Your task to perform on an android device: Add logitech g910 to the cart on bestbuy.com, then select checkout. Image 0: 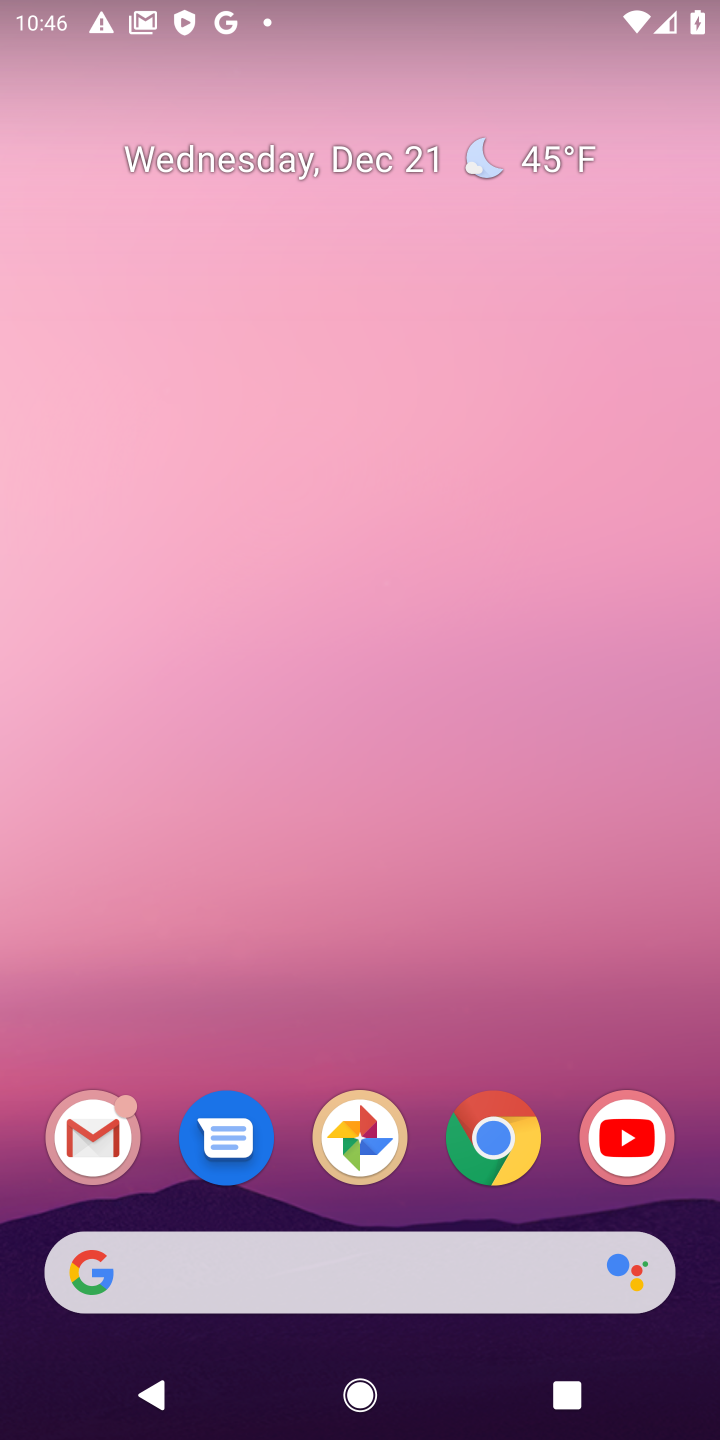
Step 0: click (498, 1137)
Your task to perform on an android device: Add logitech g910 to the cart on bestbuy.com, then select checkout. Image 1: 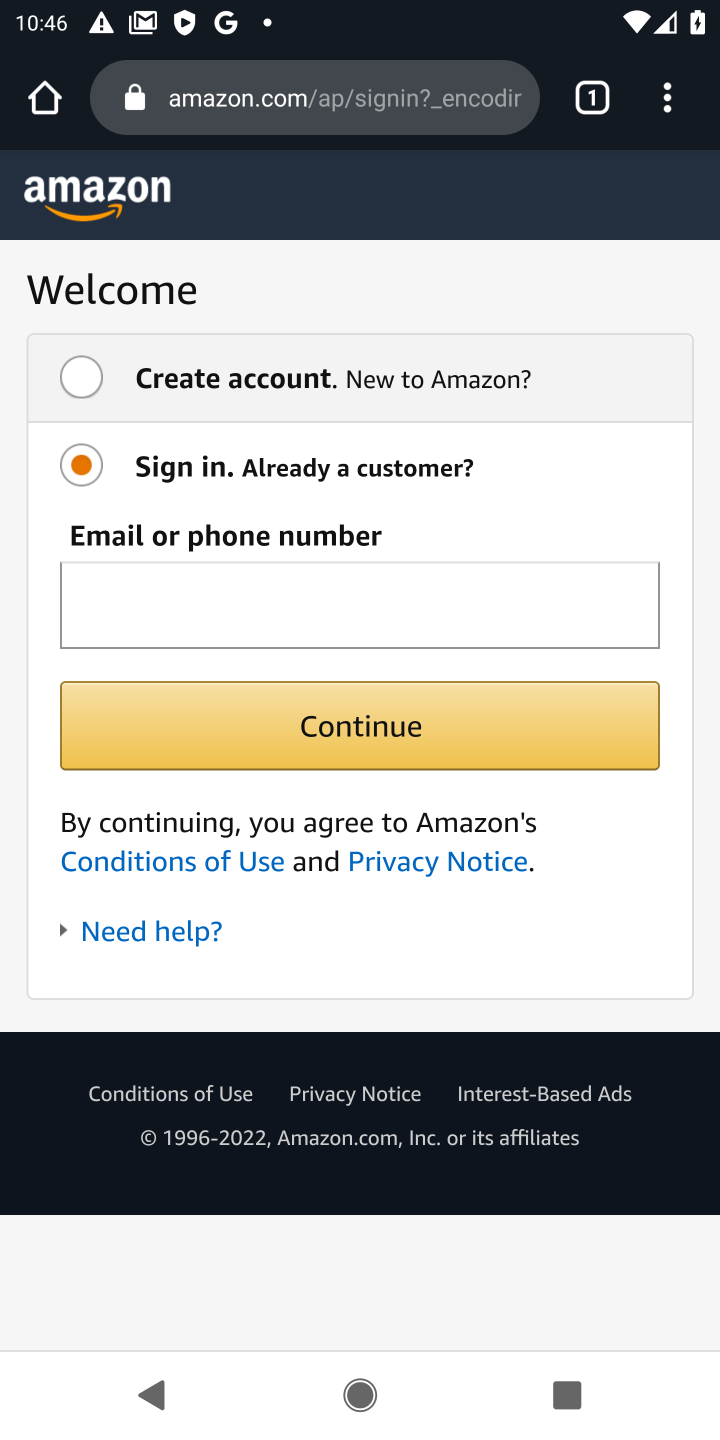
Step 1: click (274, 100)
Your task to perform on an android device: Add logitech g910 to the cart on bestbuy.com, then select checkout. Image 2: 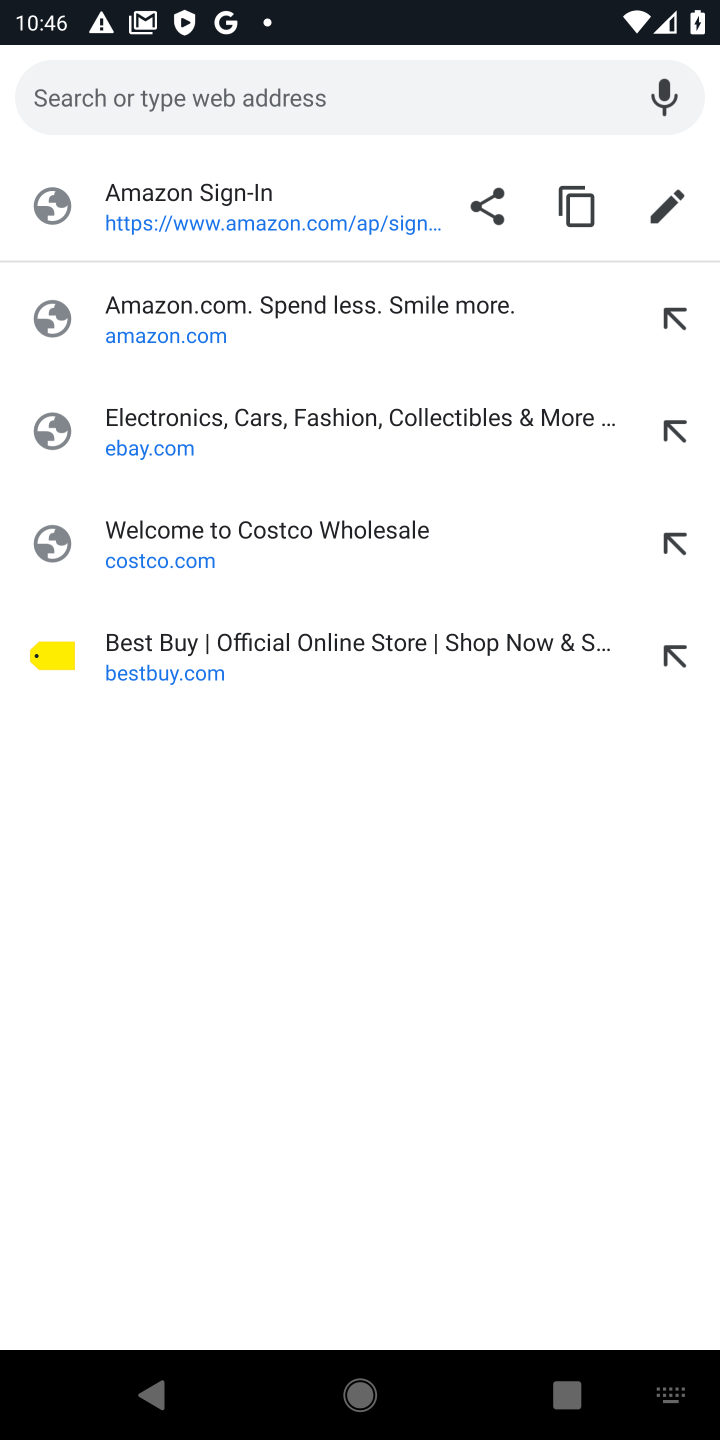
Step 2: click (148, 650)
Your task to perform on an android device: Add logitech g910 to the cart on bestbuy.com, then select checkout. Image 3: 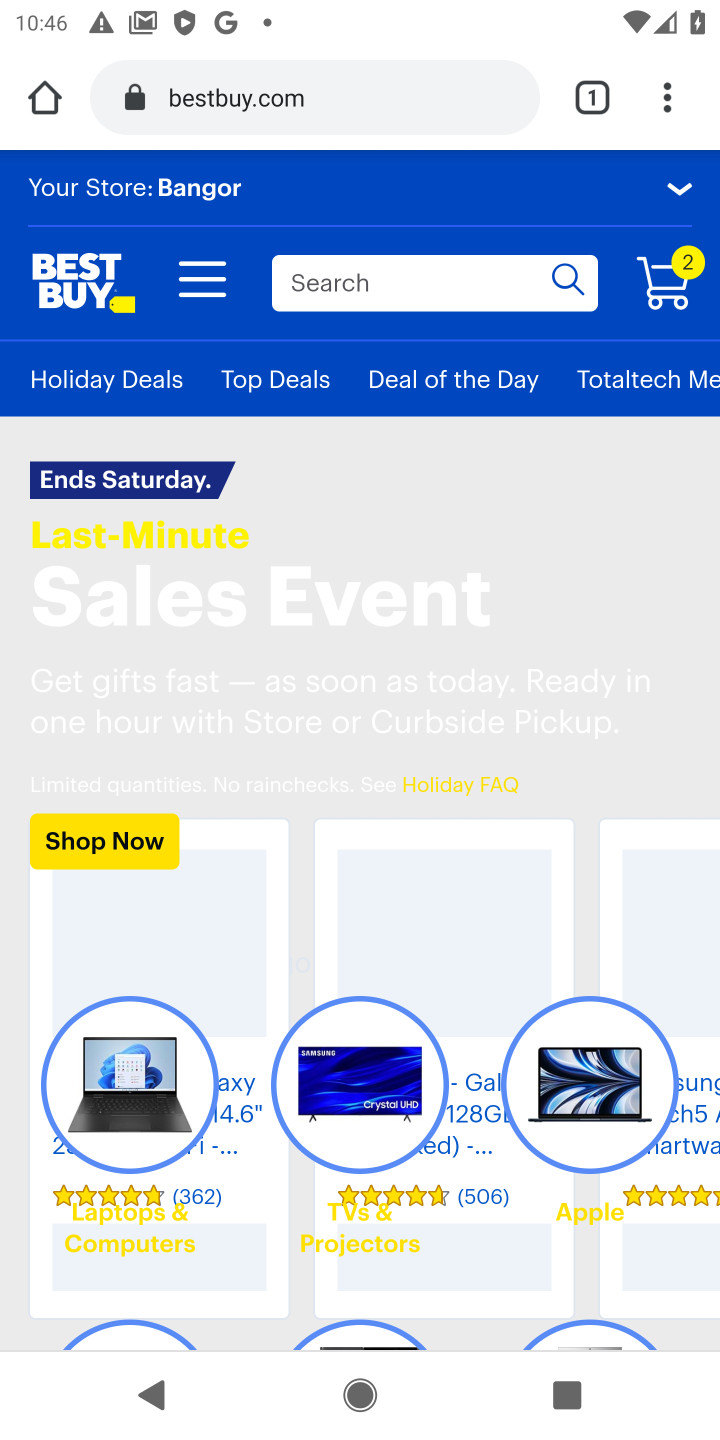
Step 3: click (347, 297)
Your task to perform on an android device: Add logitech g910 to the cart on bestbuy.com, then select checkout. Image 4: 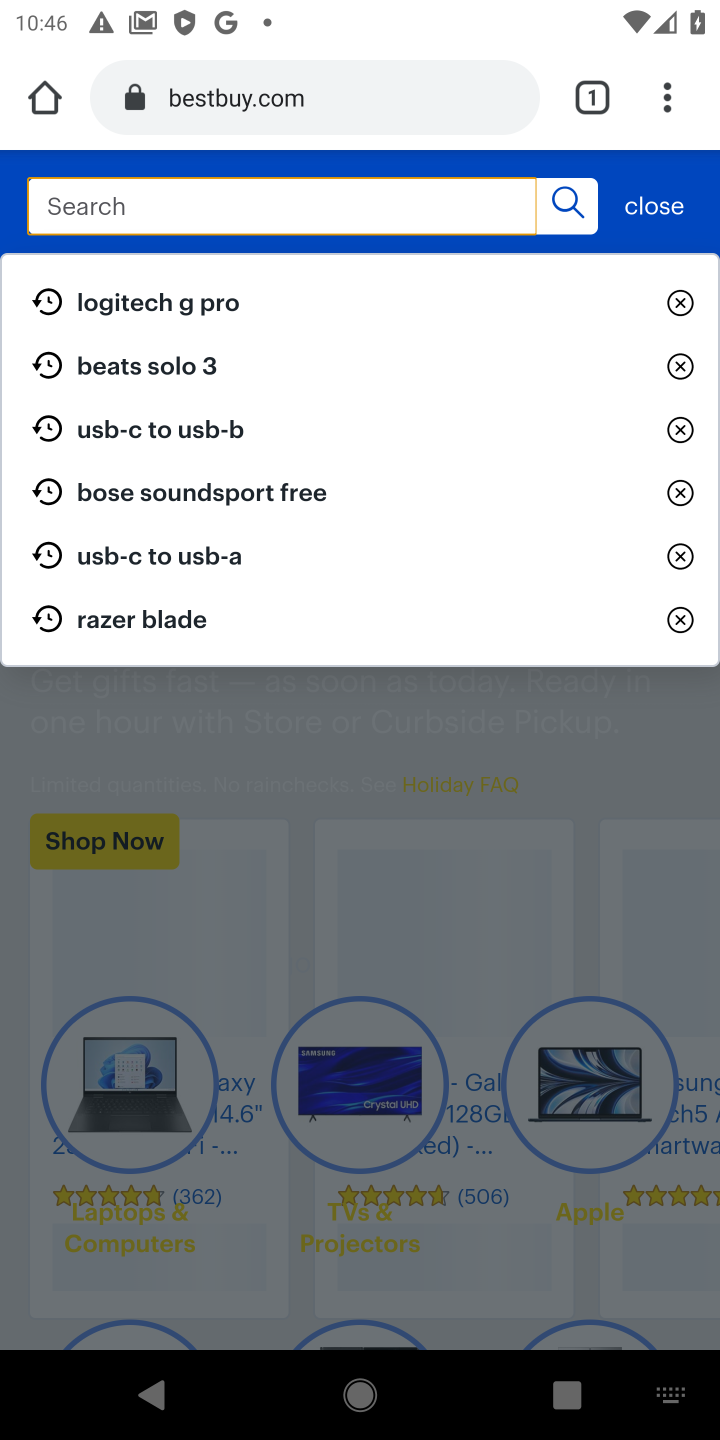
Step 4: type " logitech g910"
Your task to perform on an android device: Add logitech g910 to the cart on bestbuy.com, then select checkout. Image 5: 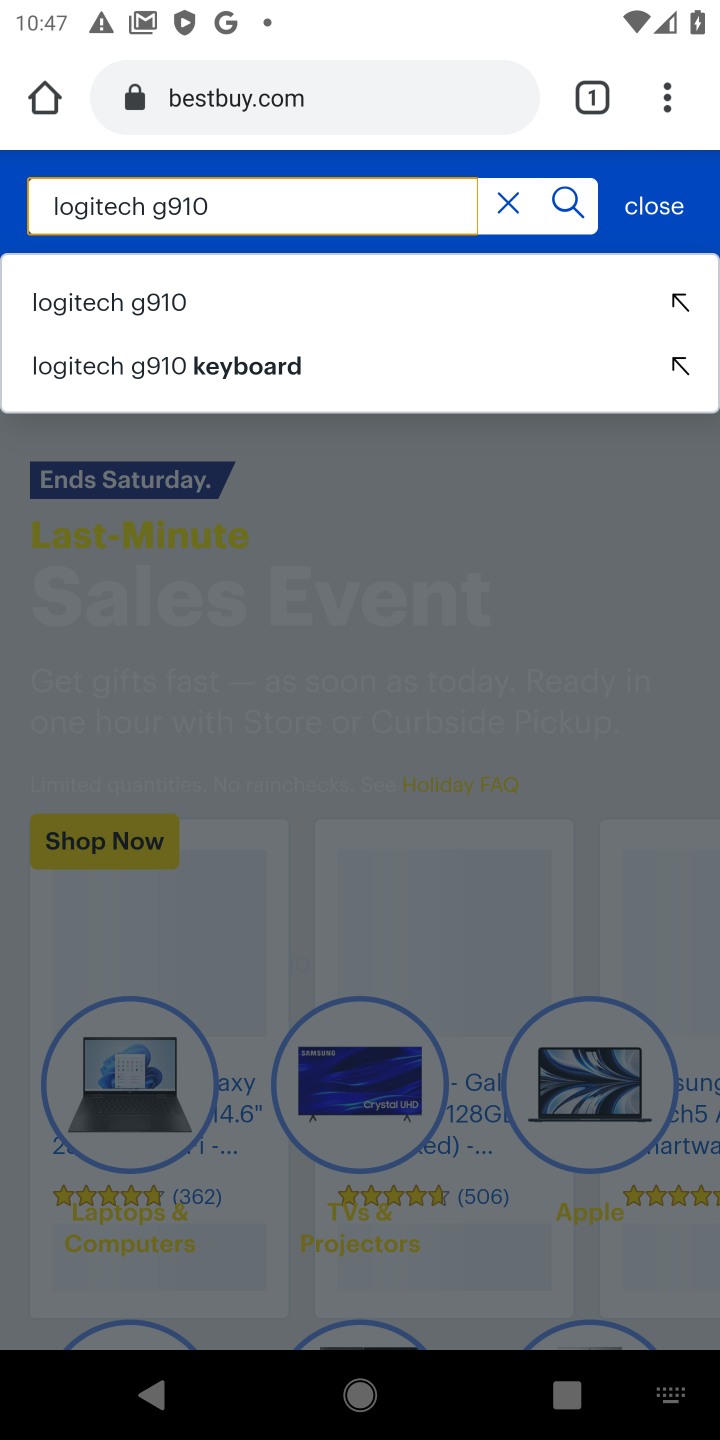
Step 5: click (120, 308)
Your task to perform on an android device: Add logitech g910 to the cart on bestbuy.com, then select checkout. Image 6: 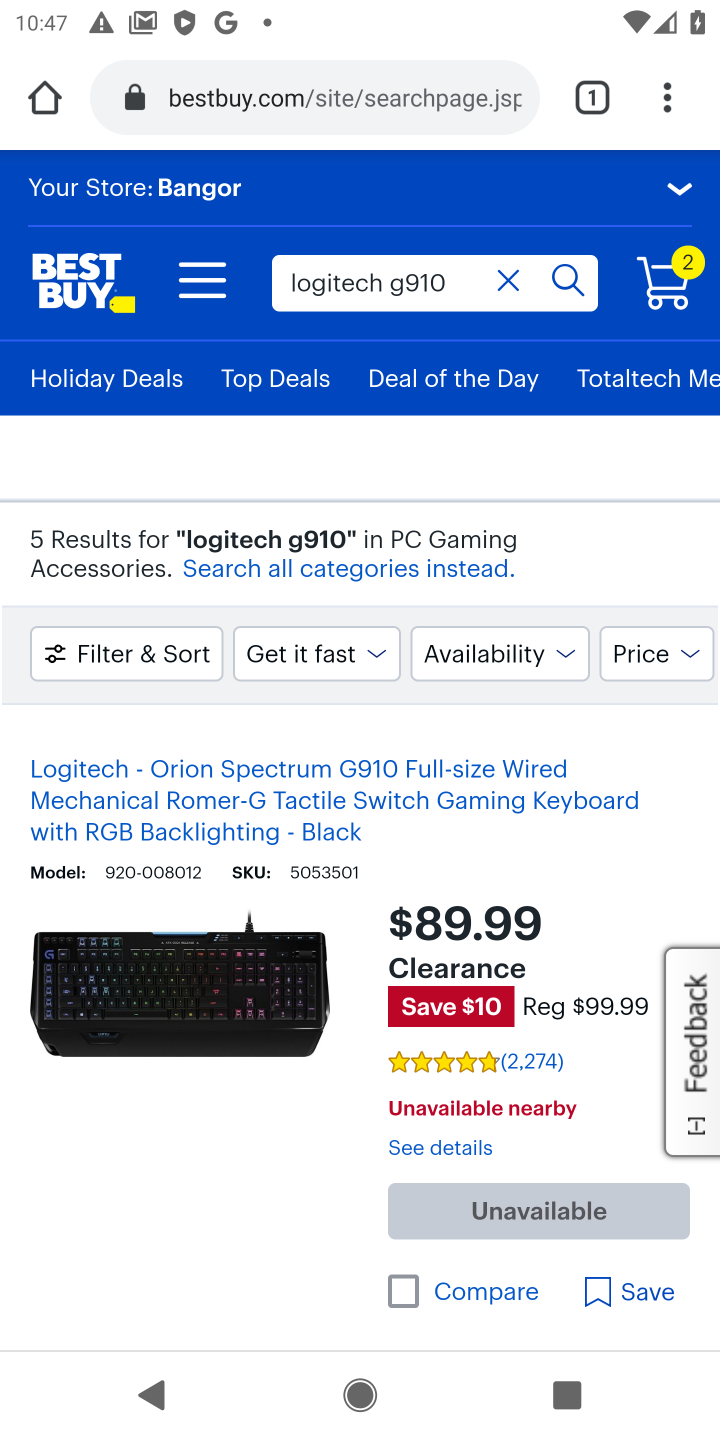
Step 6: task complete